Your task to perform on an android device: change alarm snooze length Image 0: 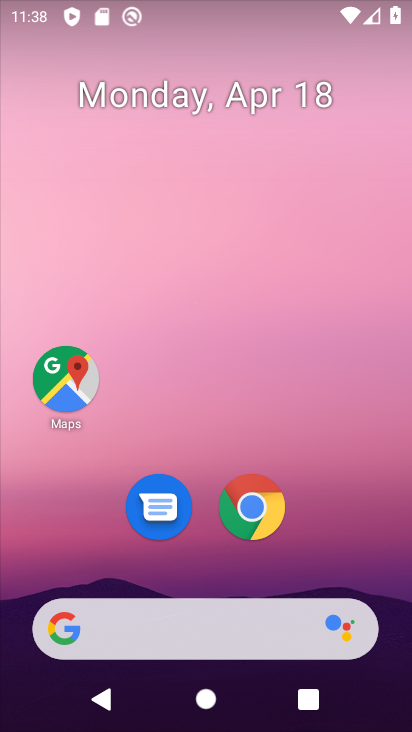
Step 0: drag from (203, 517) to (230, 81)
Your task to perform on an android device: change alarm snooze length Image 1: 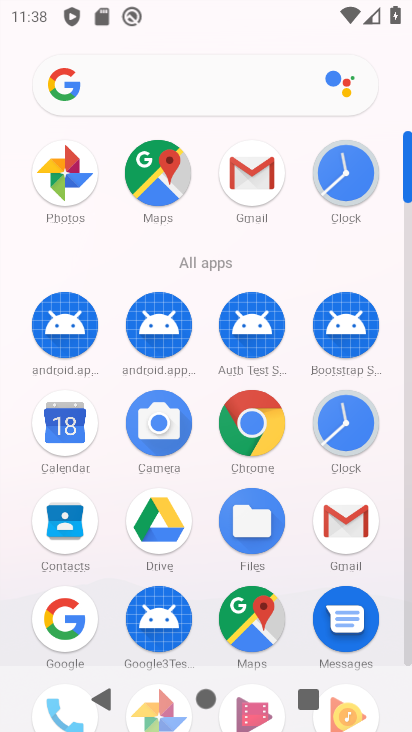
Step 1: click (345, 410)
Your task to perform on an android device: change alarm snooze length Image 2: 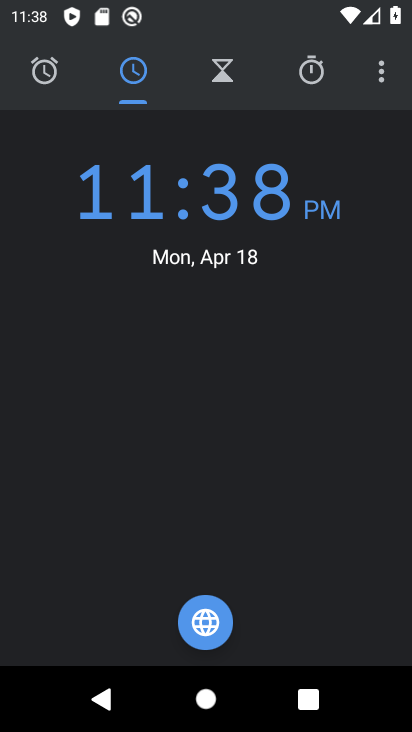
Step 2: click (383, 65)
Your task to perform on an android device: change alarm snooze length Image 3: 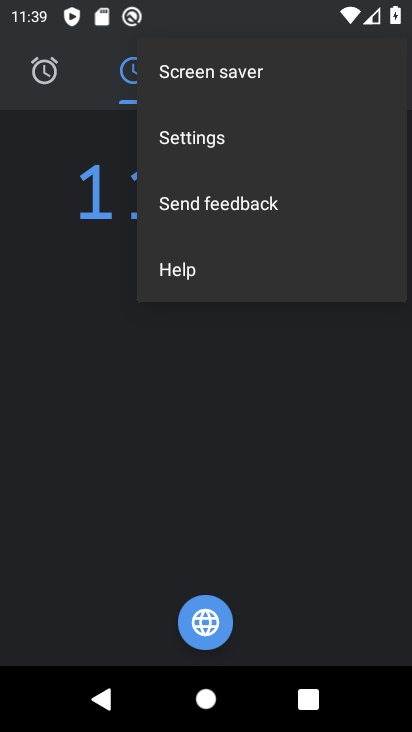
Step 3: click (228, 140)
Your task to perform on an android device: change alarm snooze length Image 4: 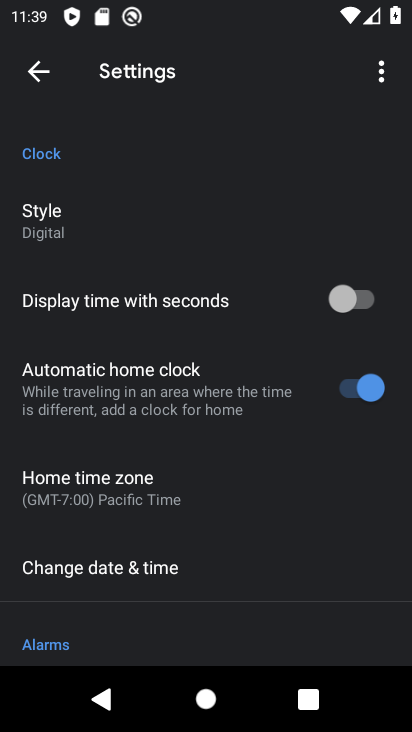
Step 4: drag from (215, 603) to (244, 140)
Your task to perform on an android device: change alarm snooze length Image 5: 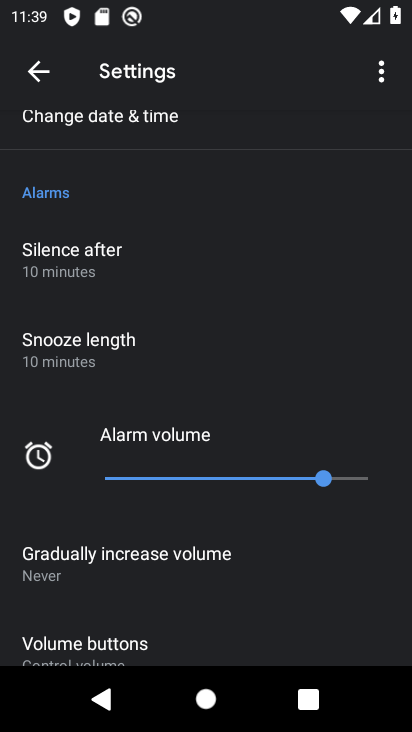
Step 5: click (120, 349)
Your task to perform on an android device: change alarm snooze length Image 6: 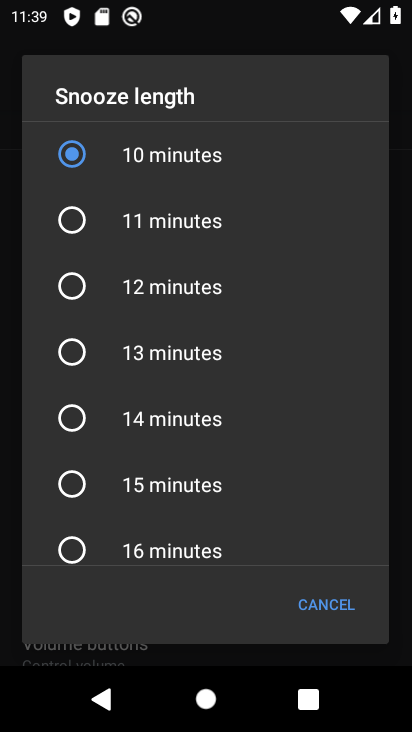
Step 6: click (67, 353)
Your task to perform on an android device: change alarm snooze length Image 7: 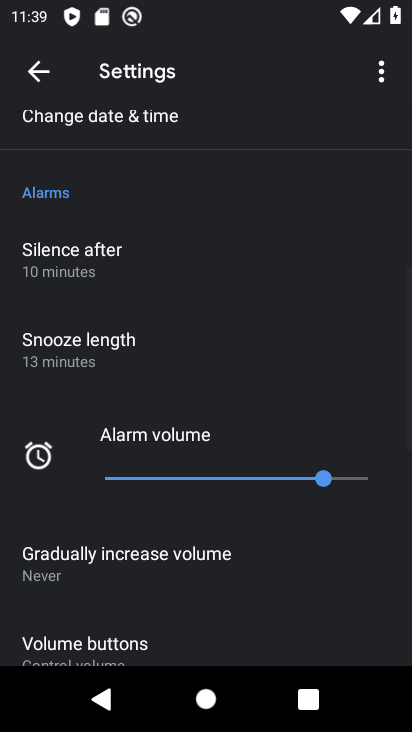
Step 7: task complete